Your task to perform on an android device: show emergency info Image 0: 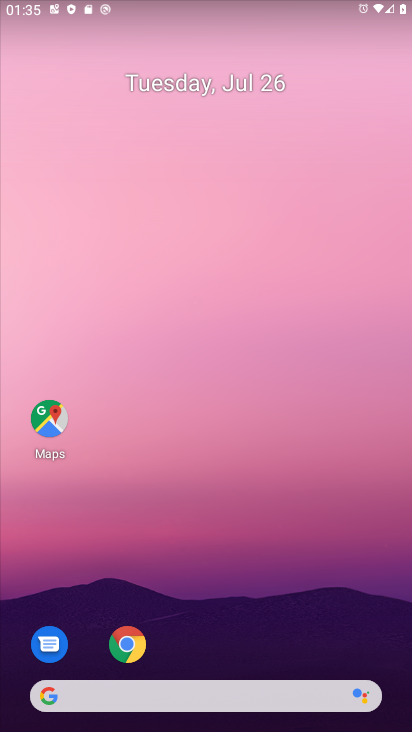
Step 0: drag from (226, 545) to (232, 148)
Your task to perform on an android device: show emergency info Image 1: 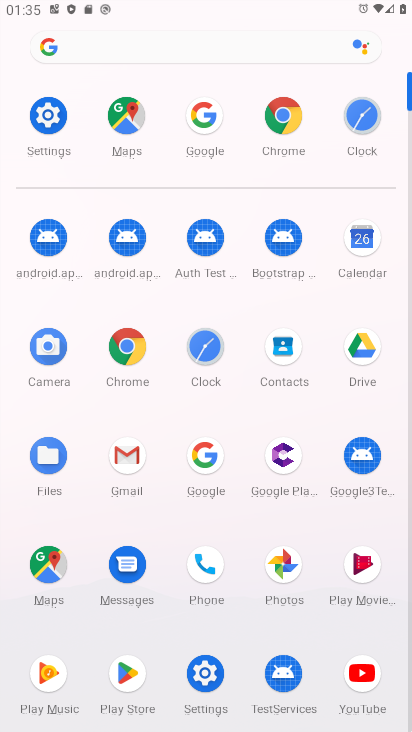
Step 1: click (48, 107)
Your task to perform on an android device: show emergency info Image 2: 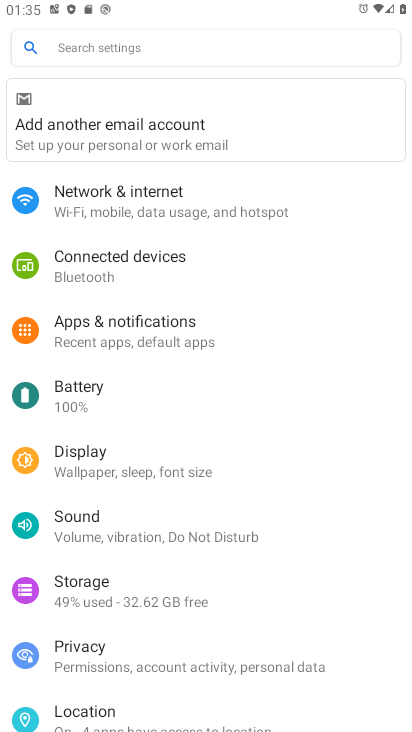
Step 2: drag from (169, 634) to (194, 77)
Your task to perform on an android device: show emergency info Image 3: 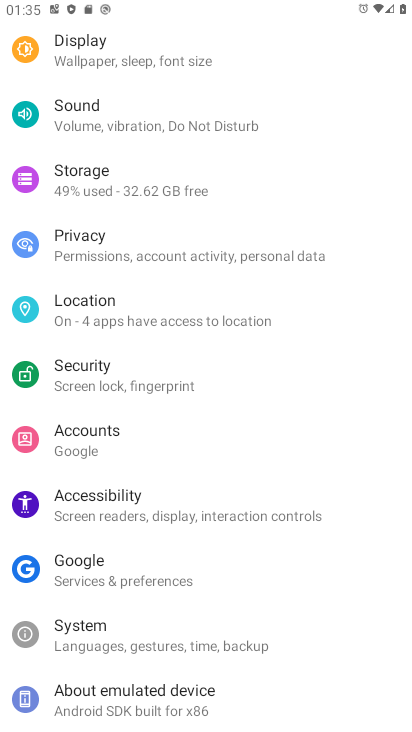
Step 3: drag from (105, 693) to (144, 241)
Your task to perform on an android device: show emergency info Image 4: 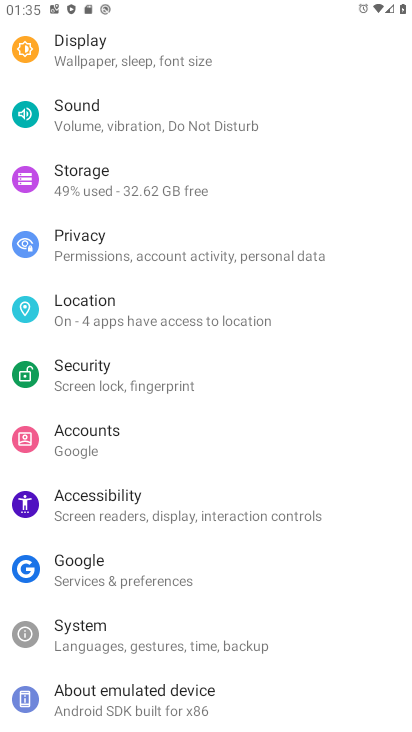
Step 4: click (111, 702)
Your task to perform on an android device: show emergency info Image 5: 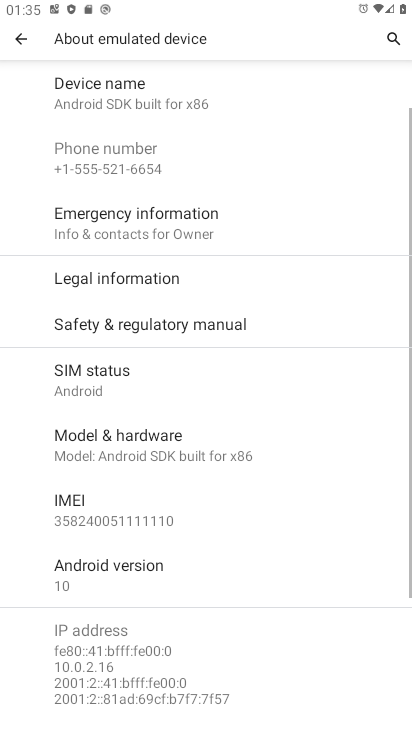
Step 5: click (113, 230)
Your task to perform on an android device: show emergency info Image 6: 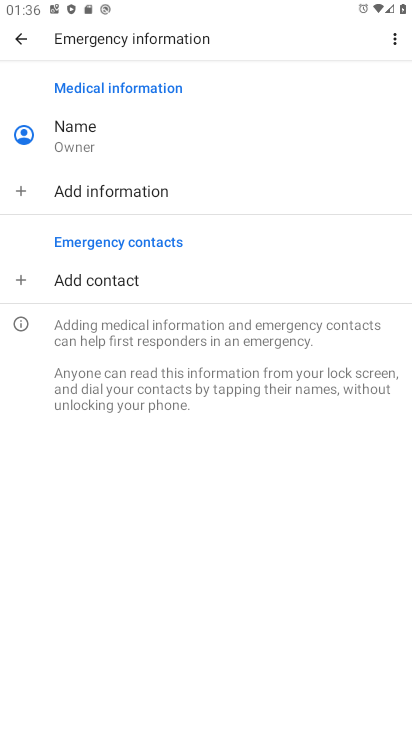
Step 6: task complete